Your task to perform on an android device: Check the weather Image 0: 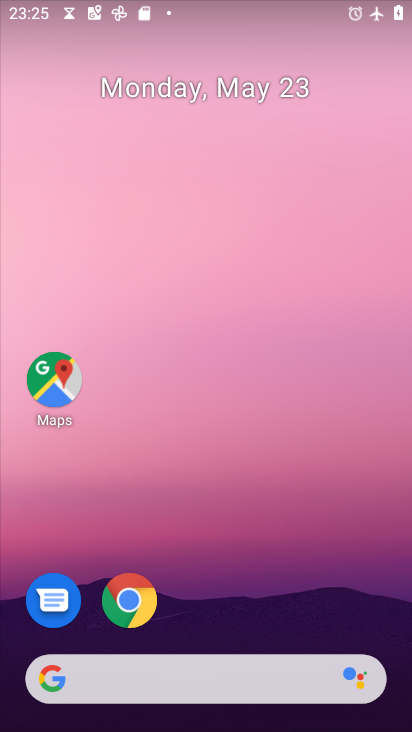
Step 0: drag from (183, 728) to (160, 155)
Your task to perform on an android device: Check the weather Image 1: 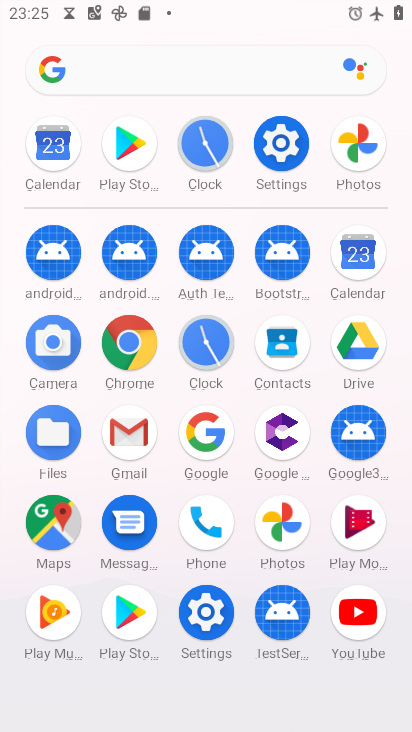
Step 1: click (209, 425)
Your task to perform on an android device: Check the weather Image 2: 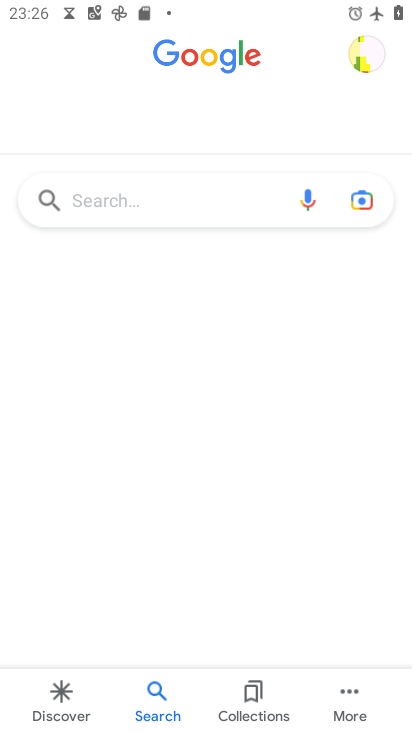
Step 2: drag from (223, 402) to (243, 150)
Your task to perform on an android device: Check the weather Image 3: 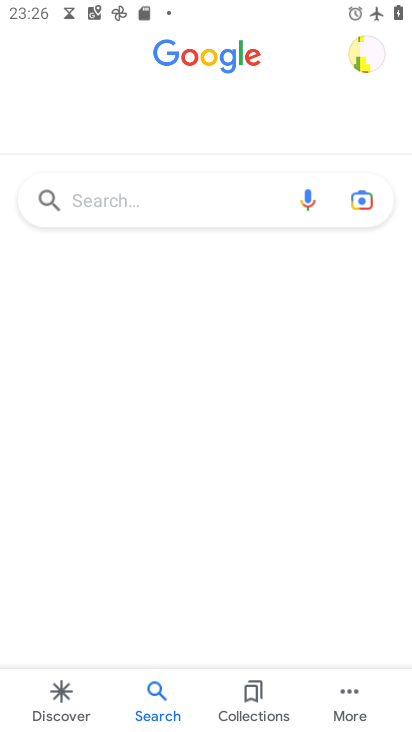
Step 3: click (191, 203)
Your task to perform on an android device: Check the weather Image 4: 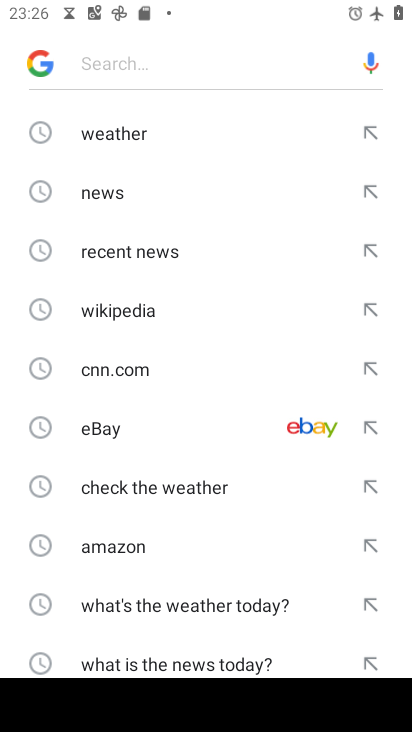
Step 4: click (96, 121)
Your task to perform on an android device: Check the weather Image 5: 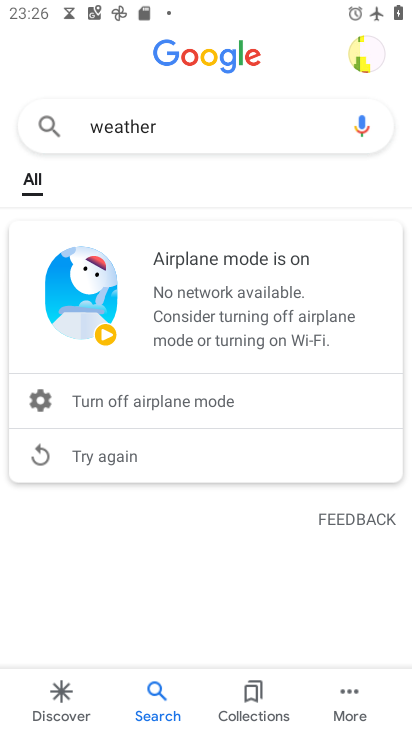
Step 5: task complete